Your task to perform on an android device: Open Google Image 0: 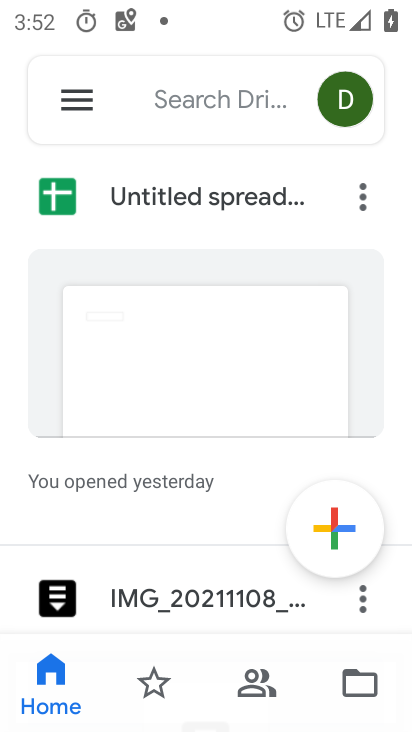
Step 0: press back button
Your task to perform on an android device: Open Google Image 1: 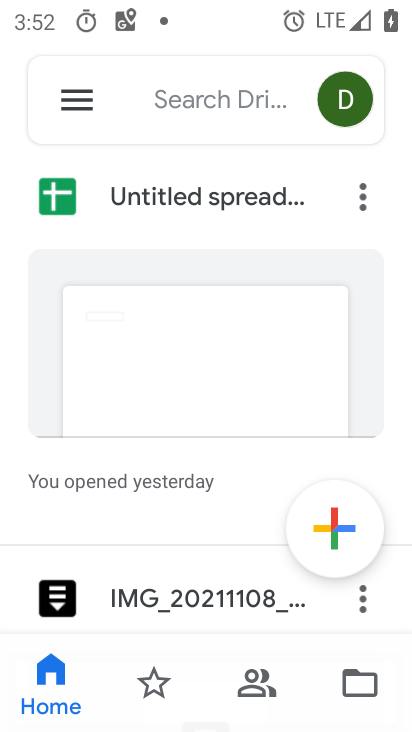
Step 1: press back button
Your task to perform on an android device: Open Google Image 2: 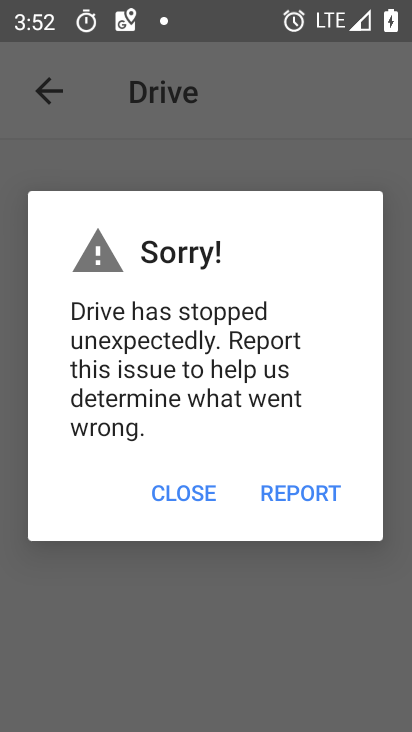
Step 2: press back button
Your task to perform on an android device: Open Google Image 3: 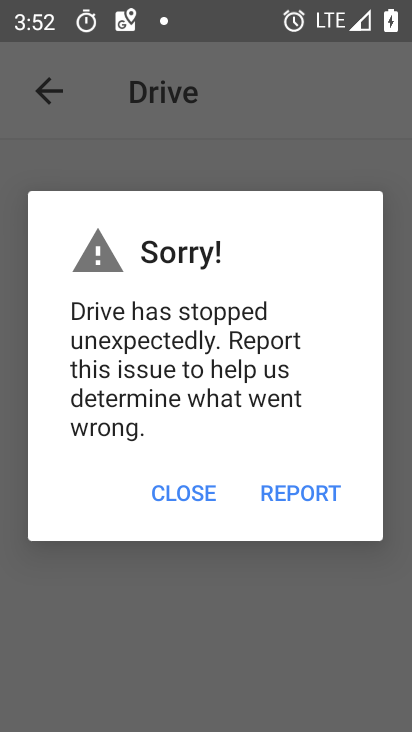
Step 3: press back button
Your task to perform on an android device: Open Google Image 4: 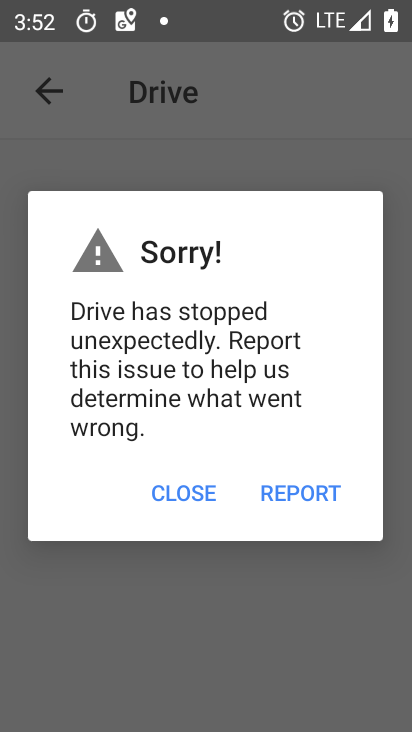
Step 4: press back button
Your task to perform on an android device: Open Google Image 5: 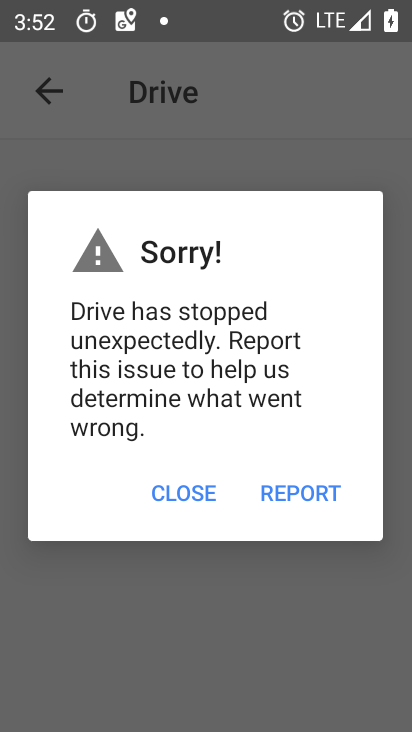
Step 5: press home button
Your task to perform on an android device: Open Google Image 6: 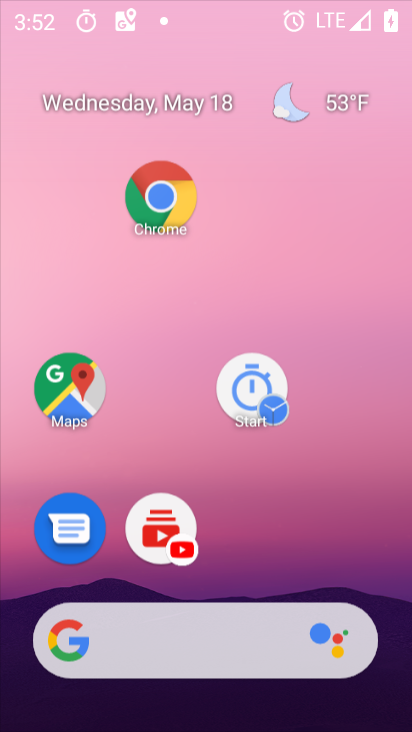
Step 6: press home button
Your task to perform on an android device: Open Google Image 7: 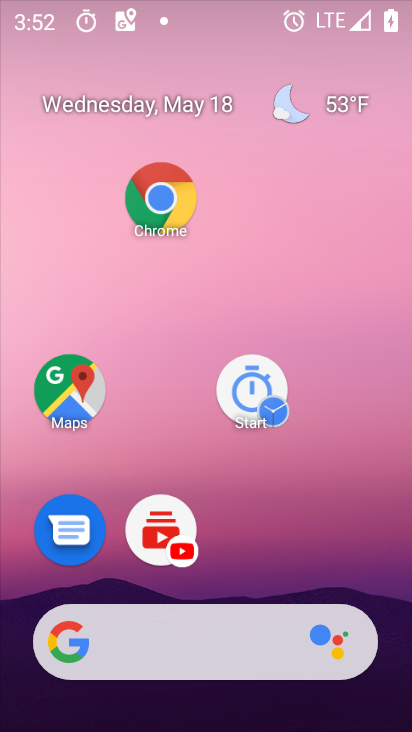
Step 7: press home button
Your task to perform on an android device: Open Google Image 8: 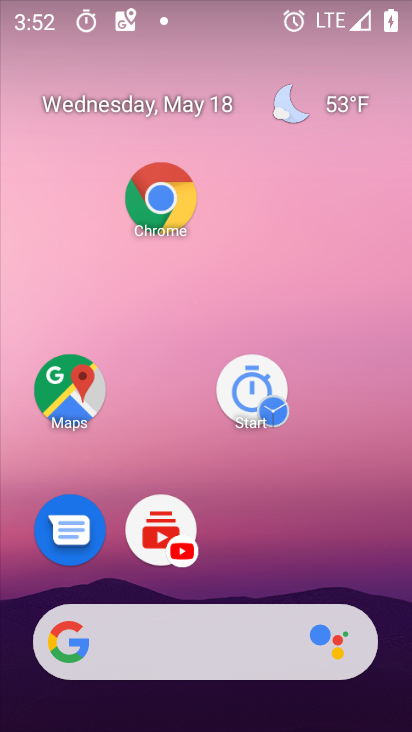
Step 8: drag from (302, 666) to (200, 37)
Your task to perform on an android device: Open Google Image 9: 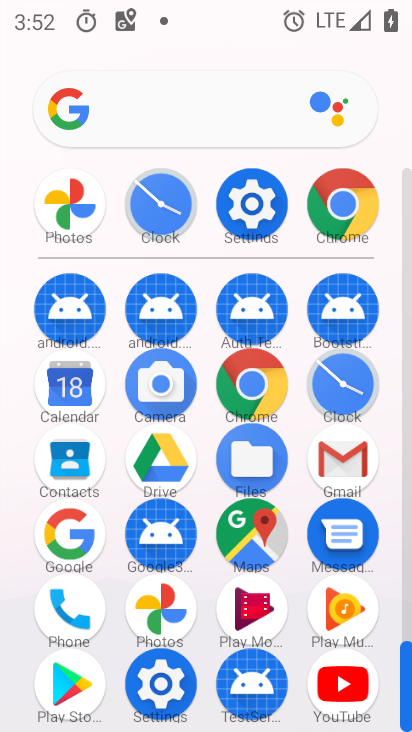
Step 9: click (56, 537)
Your task to perform on an android device: Open Google Image 10: 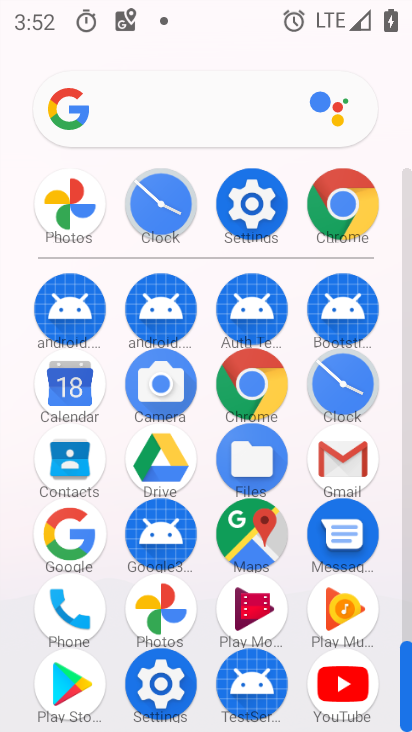
Step 10: click (69, 531)
Your task to perform on an android device: Open Google Image 11: 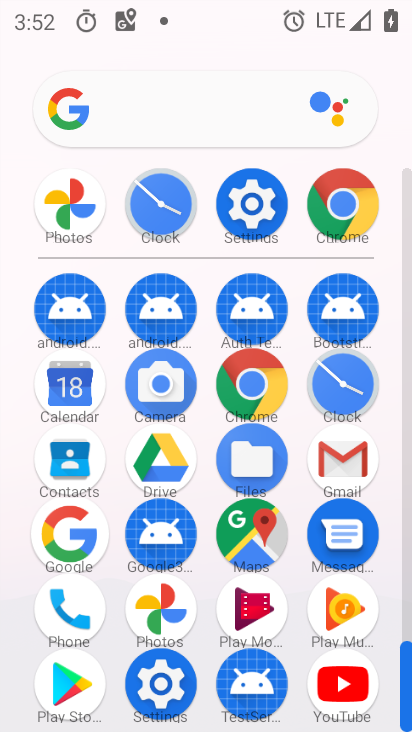
Step 11: click (76, 569)
Your task to perform on an android device: Open Google Image 12: 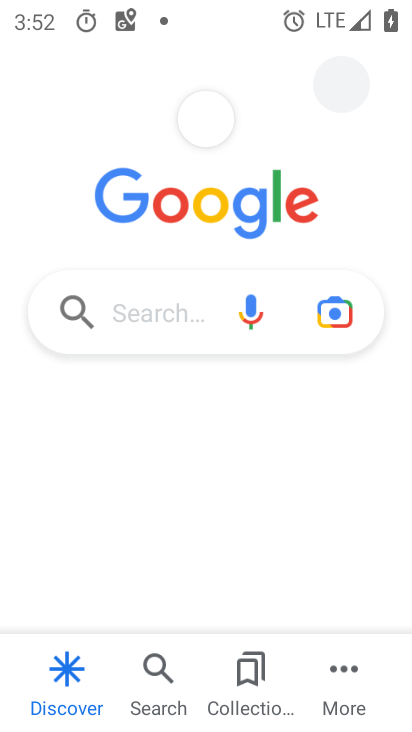
Step 12: click (69, 571)
Your task to perform on an android device: Open Google Image 13: 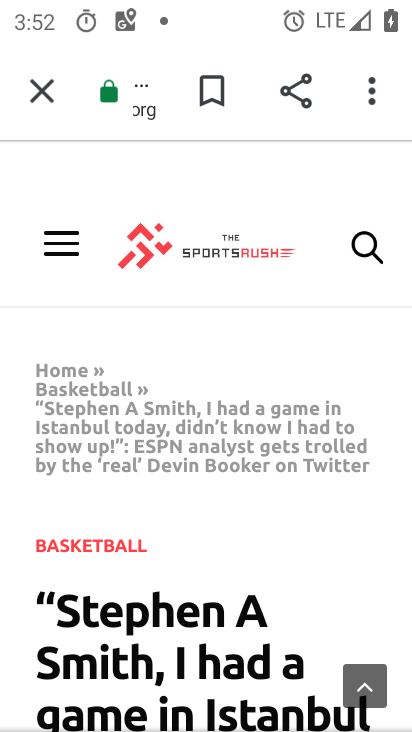
Step 13: task complete